Your task to perform on an android device: Go to notification settings Image 0: 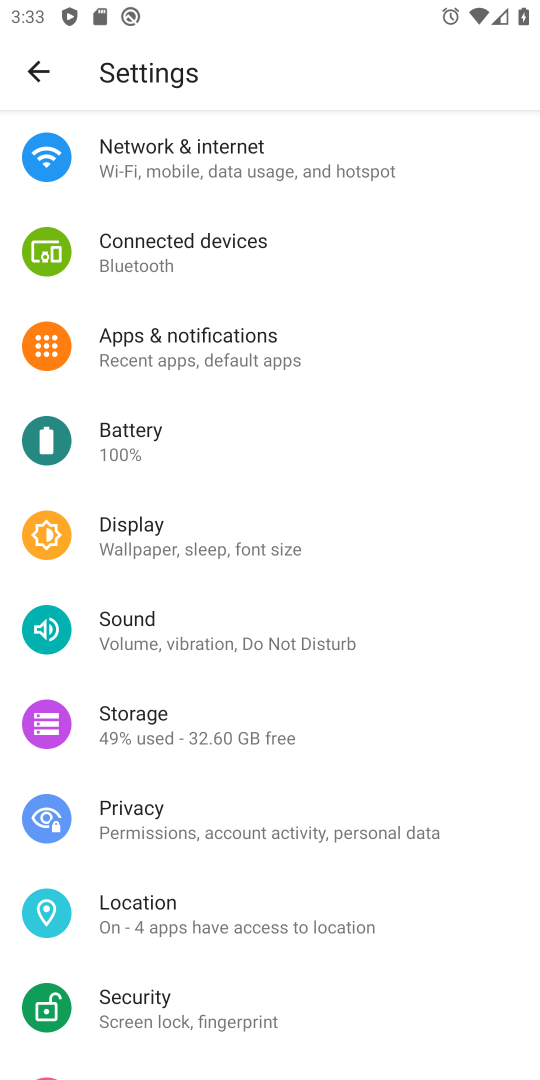
Step 0: click (195, 345)
Your task to perform on an android device: Go to notification settings Image 1: 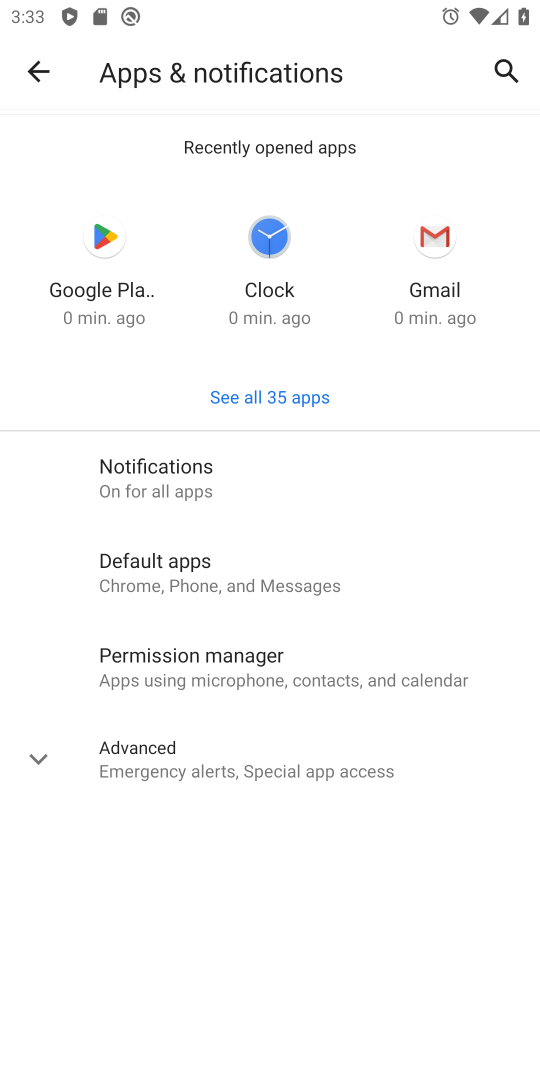
Step 1: task complete